Your task to perform on an android device: See recent photos Image 0: 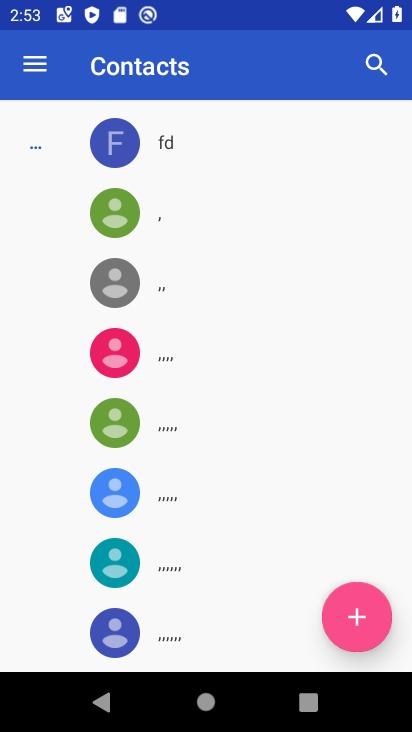
Step 0: press home button
Your task to perform on an android device: See recent photos Image 1: 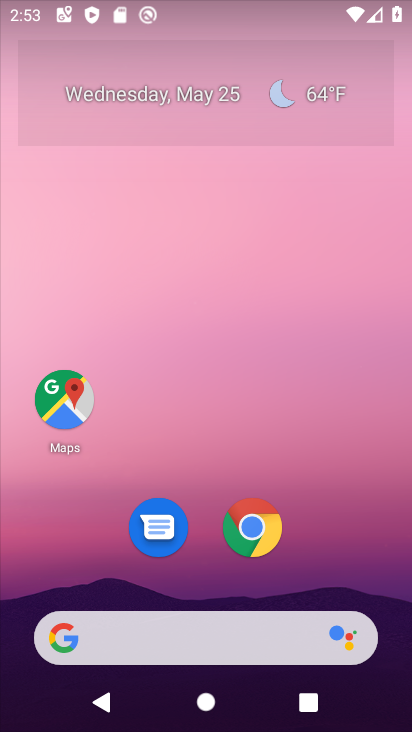
Step 1: drag from (181, 457) to (220, 15)
Your task to perform on an android device: See recent photos Image 2: 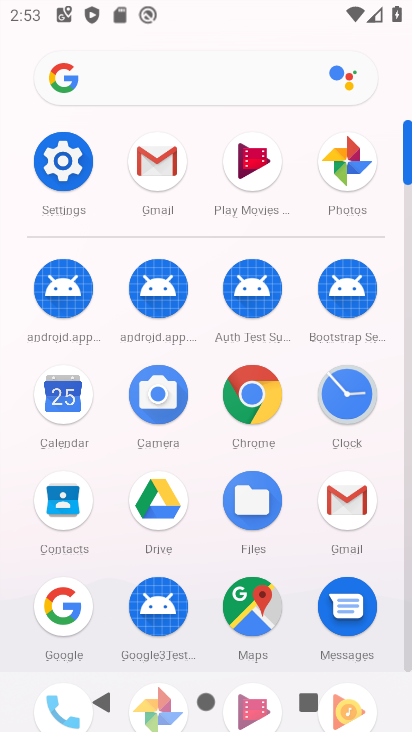
Step 2: drag from (213, 602) to (227, 188)
Your task to perform on an android device: See recent photos Image 3: 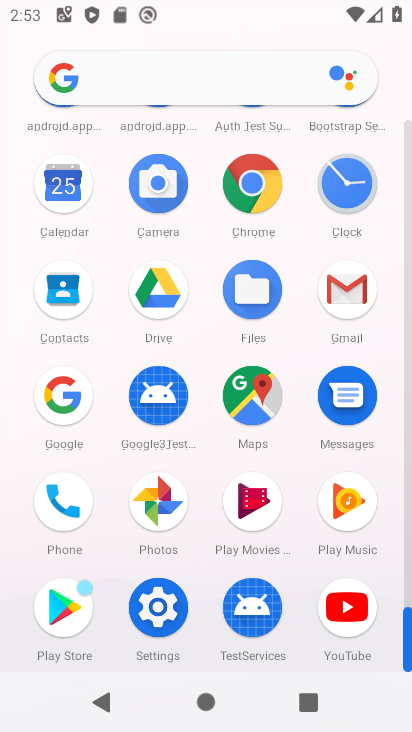
Step 3: click (155, 521)
Your task to perform on an android device: See recent photos Image 4: 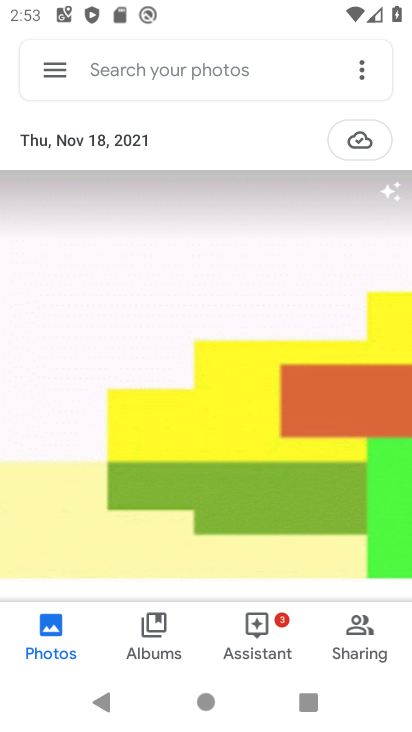
Step 4: task complete